Your task to perform on an android device: Go to Google Image 0: 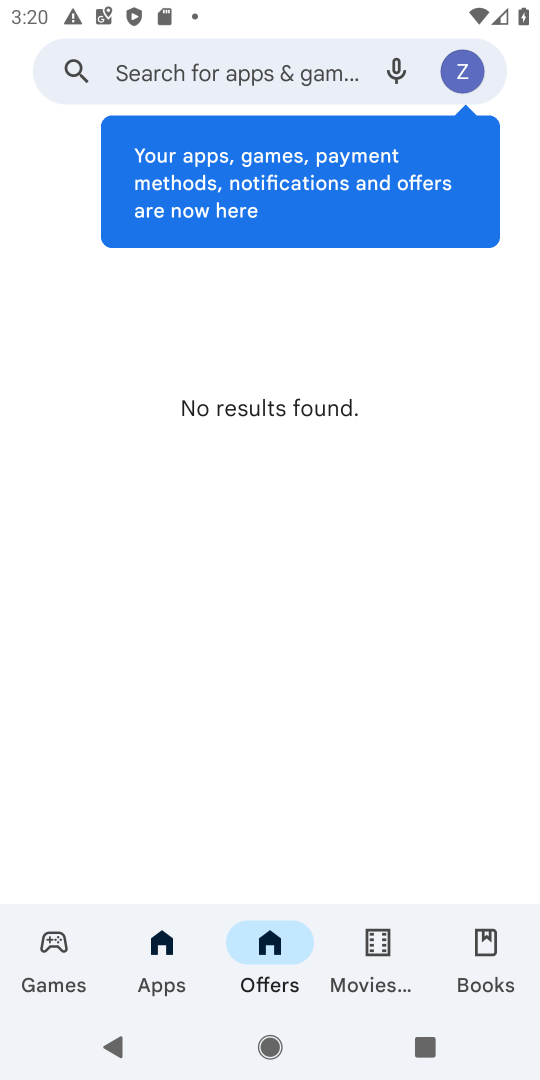
Step 0: press back button
Your task to perform on an android device: Go to Google Image 1: 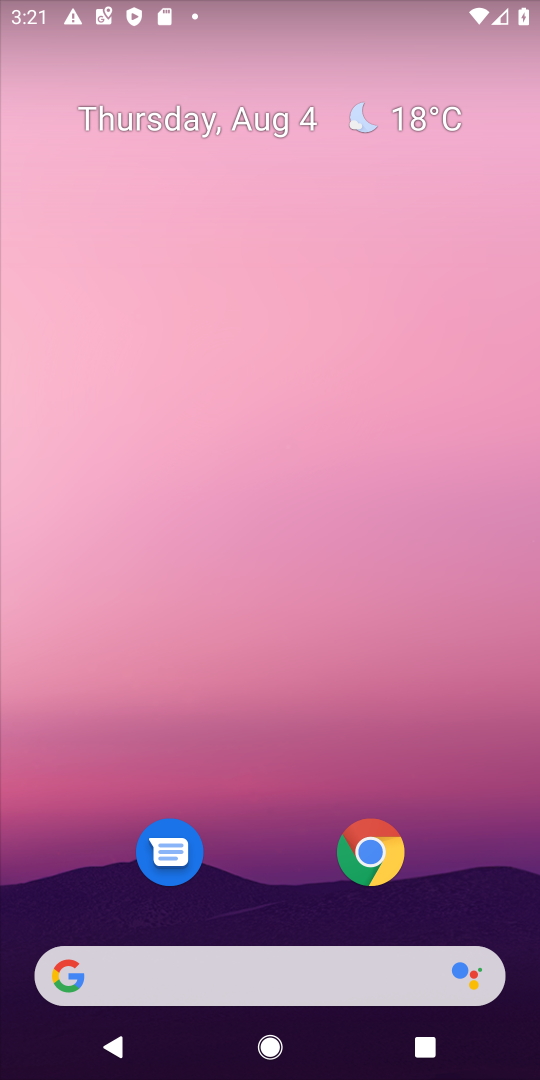
Step 1: drag from (274, 827) to (329, 66)
Your task to perform on an android device: Go to Google Image 2: 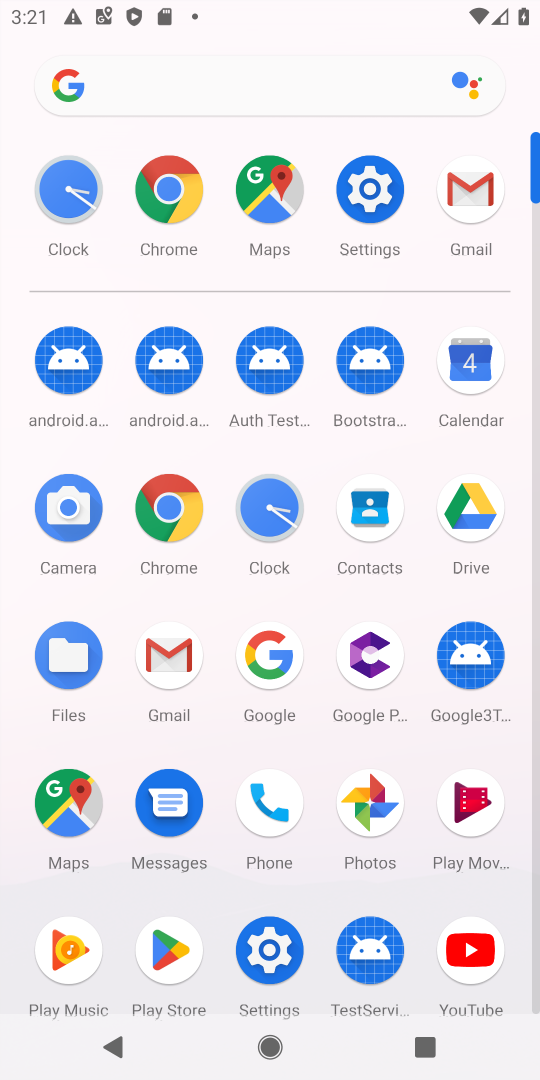
Step 2: click (250, 675)
Your task to perform on an android device: Go to Google Image 3: 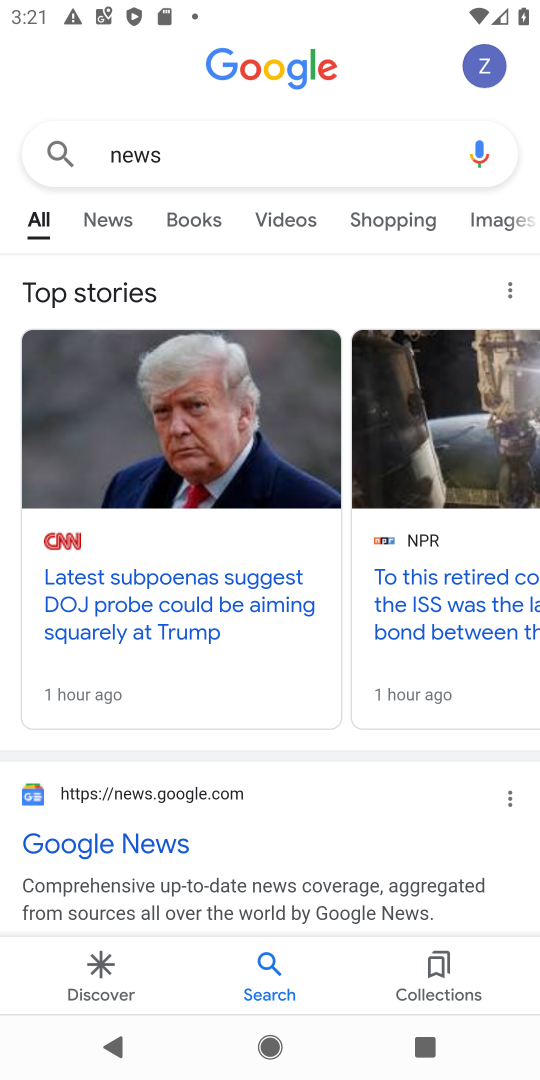
Step 3: task complete